Your task to perform on an android device: Open Youtube and go to "Your channel" Image 0: 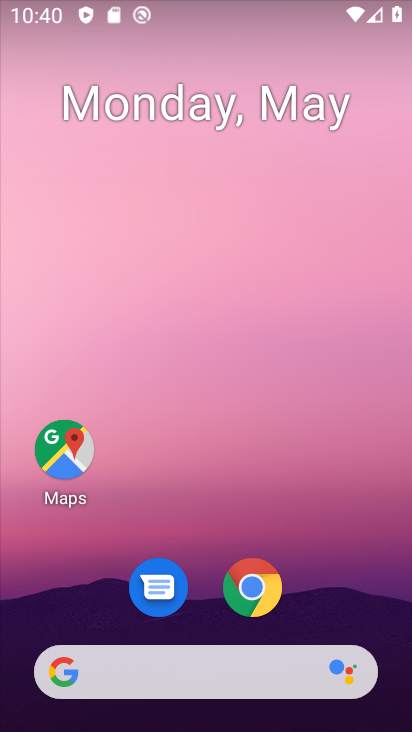
Step 0: drag from (404, 637) to (334, 67)
Your task to perform on an android device: Open Youtube and go to "Your channel" Image 1: 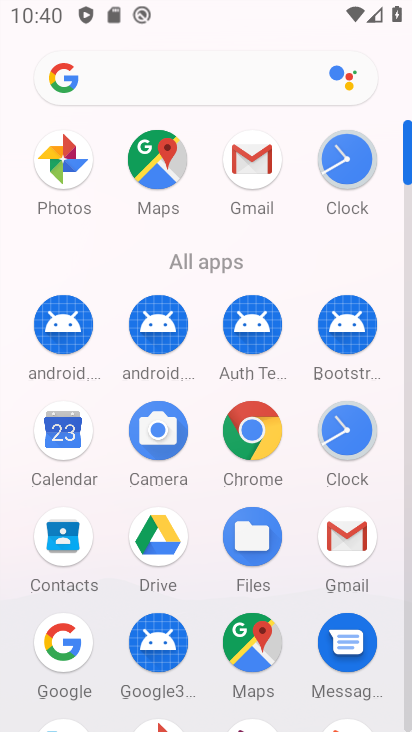
Step 1: click (409, 626)
Your task to perform on an android device: Open Youtube and go to "Your channel" Image 2: 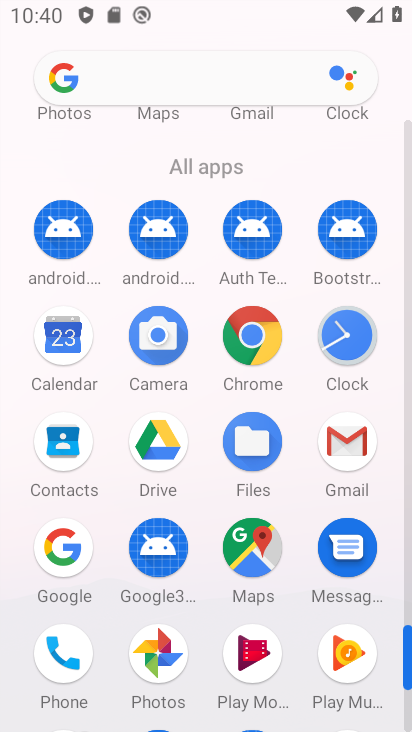
Step 2: drag from (396, 625) to (395, 390)
Your task to perform on an android device: Open Youtube and go to "Your channel" Image 3: 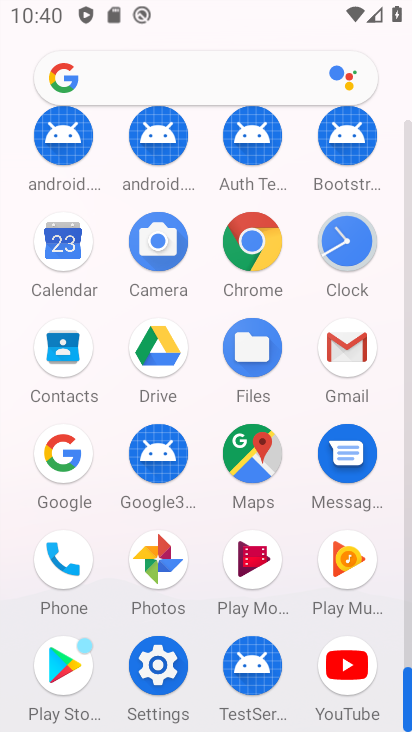
Step 3: click (359, 654)
Your task to perform on an android device: Open Youtube and go to "Your channel" Image 4: 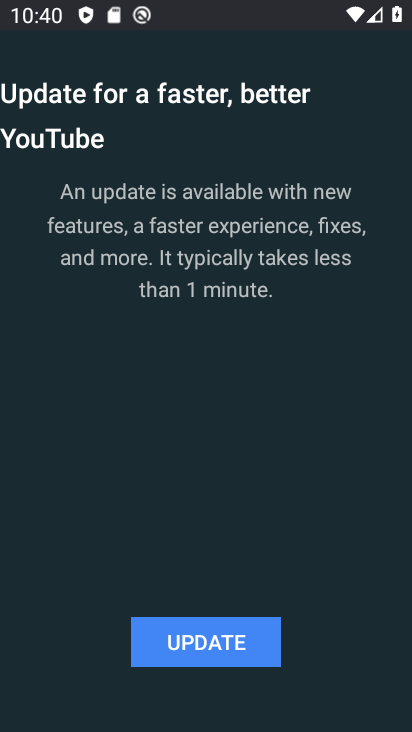
Step 4: click (188, 652)
Your task to perform on an android device: Open Youtube and go to "Your channel" Image 5: 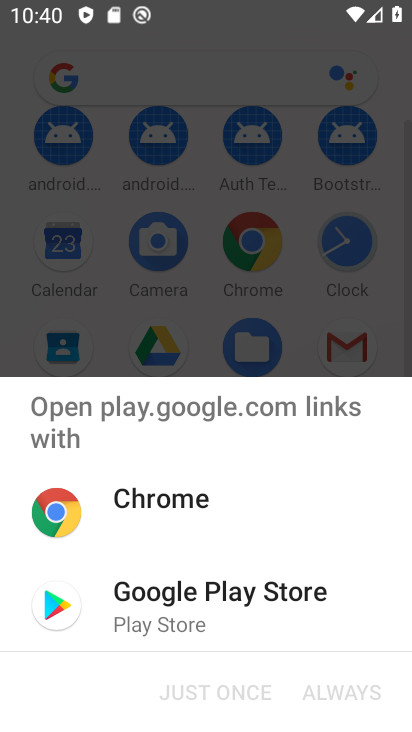
Step 5: click (235, 618)
Your task to perform on an android device: Open Youtube and go to "Your channel" Image 6: 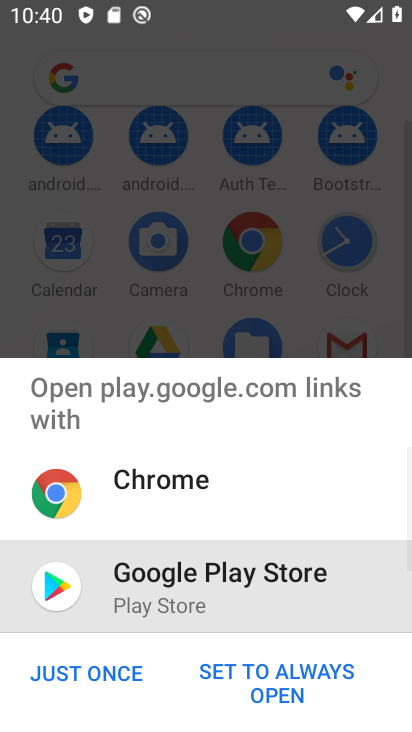
Step 6: click (147, 679)
Your task to perform on an android device: Open Youtube and go to "Your channel" Image 7: 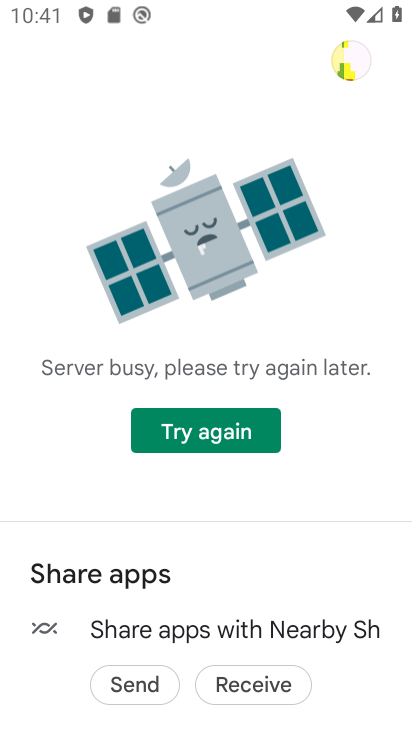
Step 7: task complete